Your task to perform on an android device: Is it going to rain this weekend? Image 0: 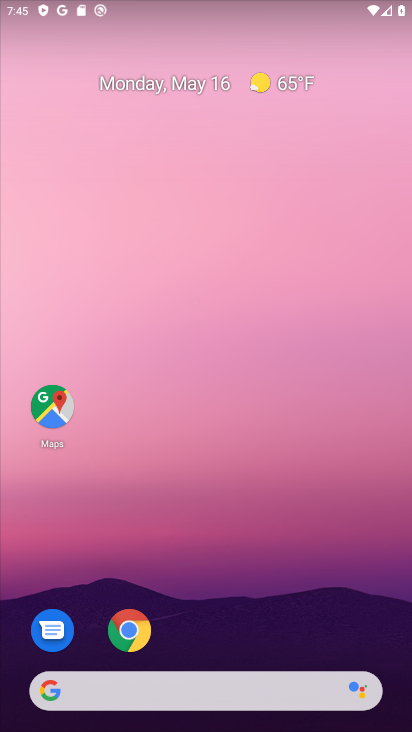
Step 0: drag from (194, 619) to (206, 134)
Your task to perform on an android device: Is it going to rain this weekend? Image 1: 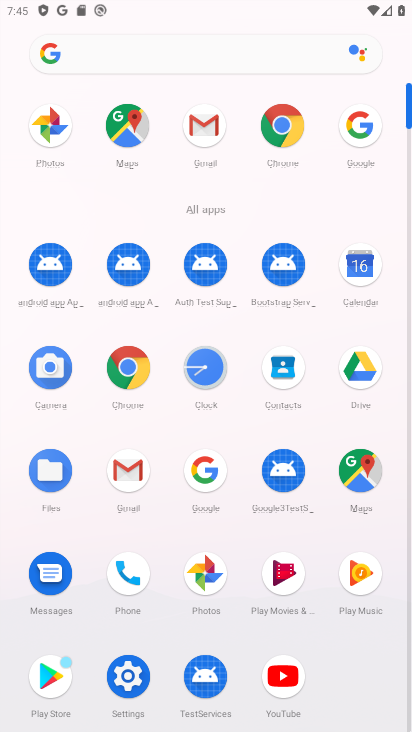
Step 1: click (351, 133)
Your task to perform on an android device: Is it going to rain this weekend? Image 2: 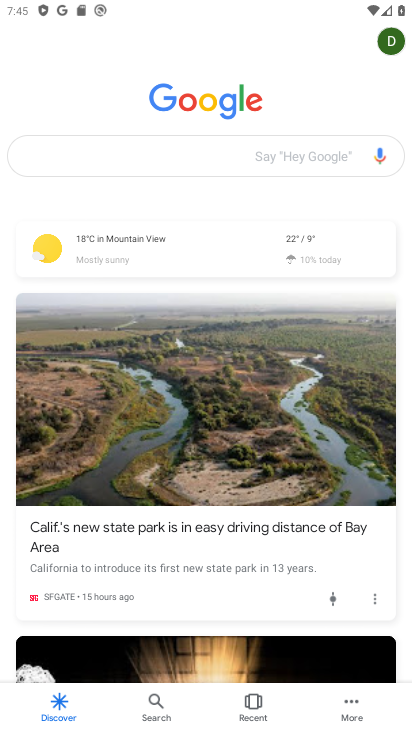
Step 2: click (149, 236)
Your task to perform on an android device: Is it going to rain this weekend? Image 3: 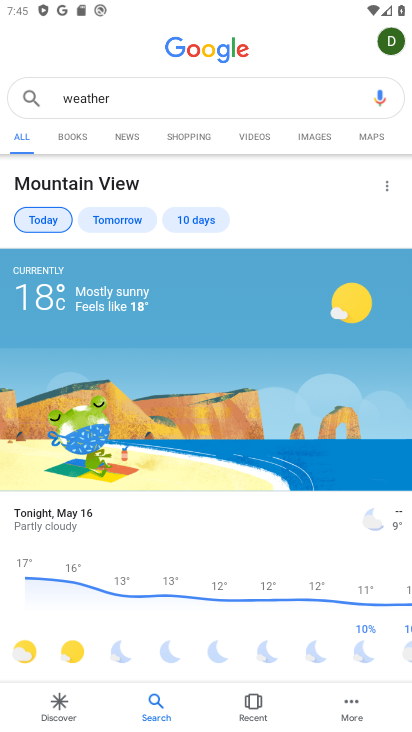
Step 3: click (179, 207)
Your task to perform on an android device: Is it going to rain this weekend? Image 4: 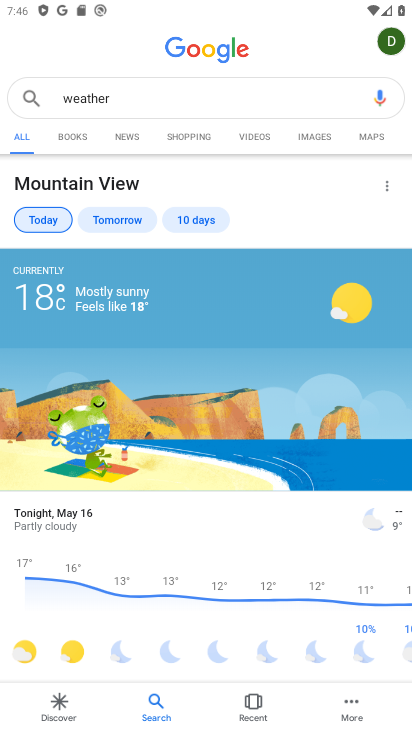
Step 4: click (181, 213)
Your task to perform on an android device: Is it going to rain this weekend? Image 5: 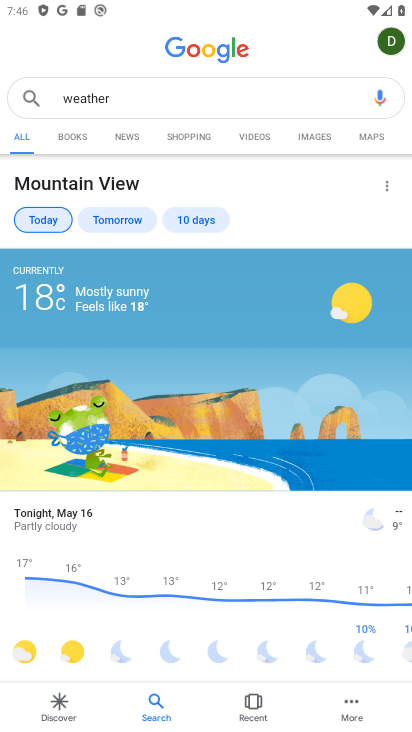
Step 5: click (181, 215)
Your task to perform on an android device: Is it going to rain this weekend? Image 6: 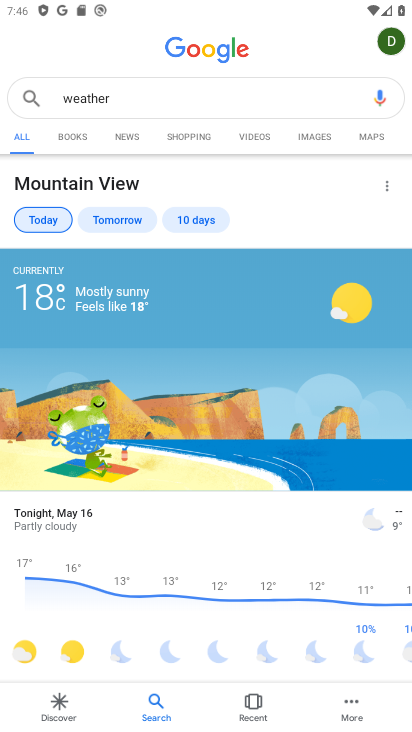
Step 6: click (181, 218)
Your task to perform on an android device: Is it going to rain this weekend? Image 7: 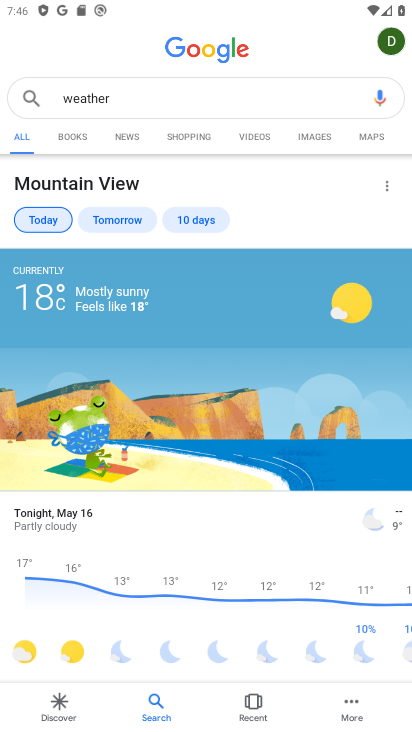
Step 7: click (181, 218)
Your task to perform on an android device: Is it going to rain this weekend? Image 8: 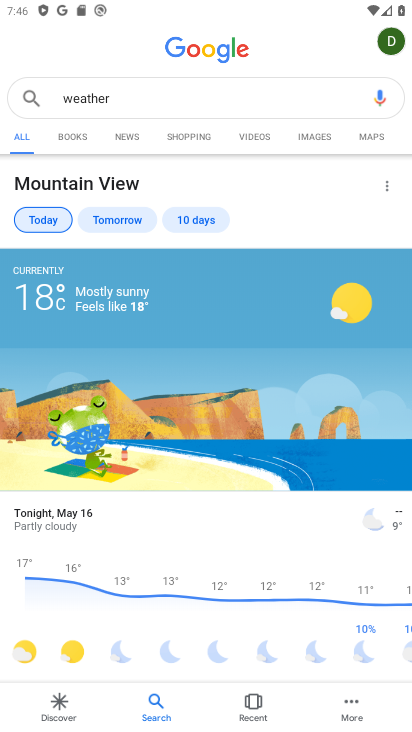
Step 8: click (143, 385)
Your task to perform on an android device: Is it going to rain this weekend? Image 9: 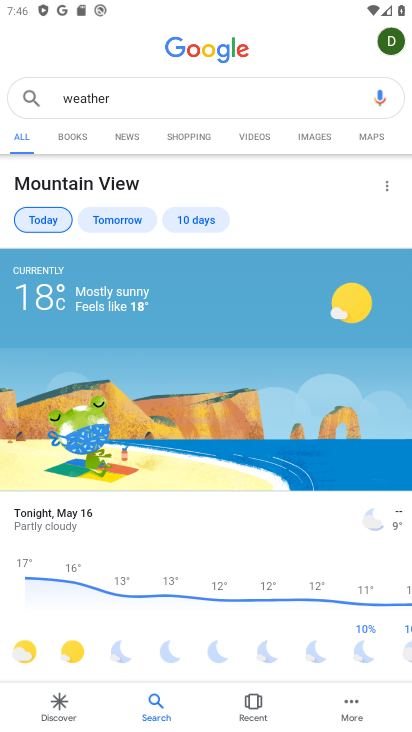
Step 9: drag from (154, 524) to (168, 275)
Your task to perform on an android device: Is it going to rain this weekend? Image 10: 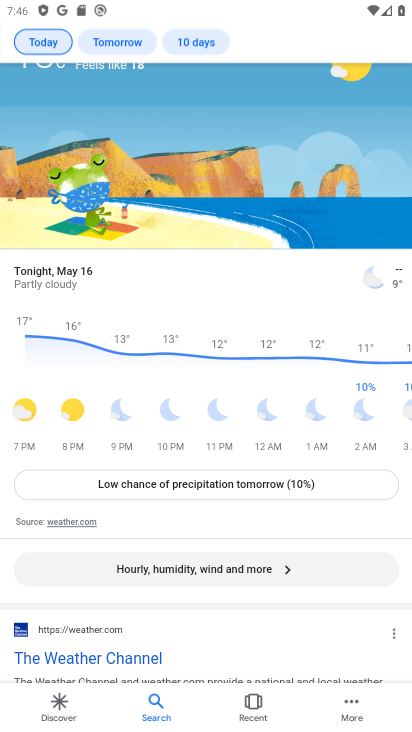
Step 10: click (154, 382)
Your task to perform on an android device: Is it going to rain this weekend? Image 11: 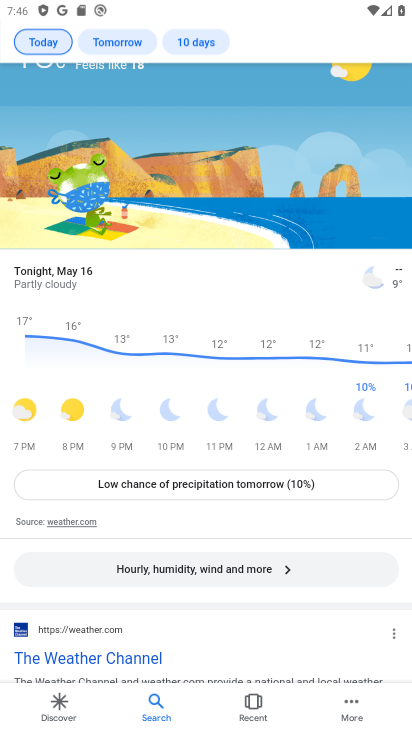
Step 11: drag from (265, 231) to (269, 417)
Your task to perform on an android device: Is it going to rain this weekend? Image 12: 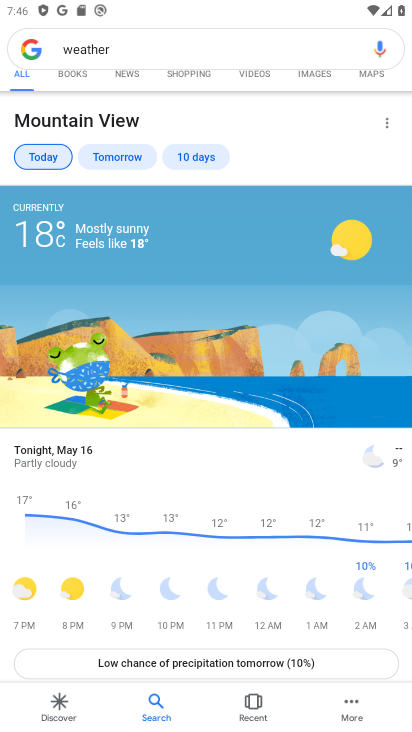
Step 12: click (187, 158)
Your task to perform on an android device: Is it going to rain this weekend? Image 13: 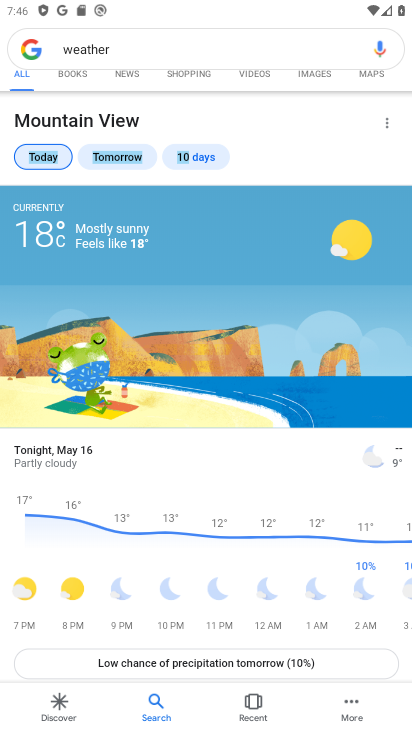
Step 13: click (64, 154)
Your task to perform on an android device: Is it going to rain this weekend? Image 14: 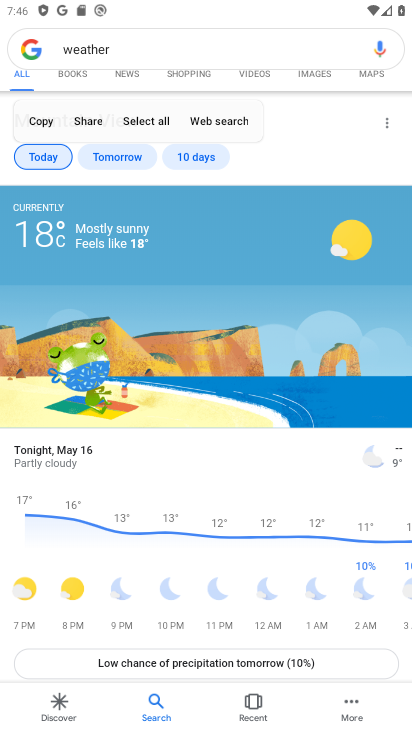
Step 14: click (103, 154)
Your task to perform on an android device: Is it going to rain this weekend? Image 15: 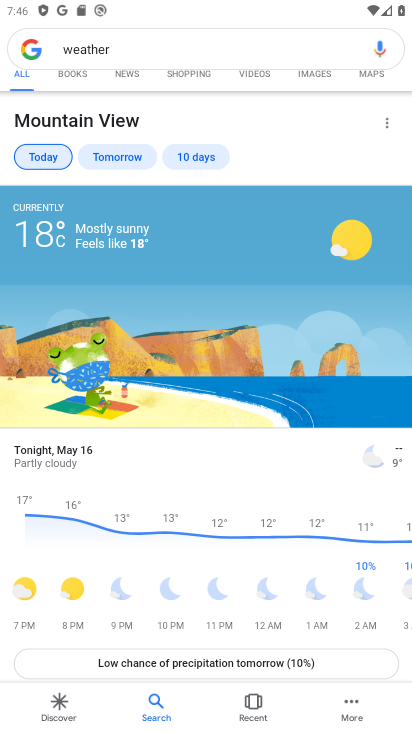
Step 15: task complete